Your task to perform on an android device: turn on wifi Image 0: 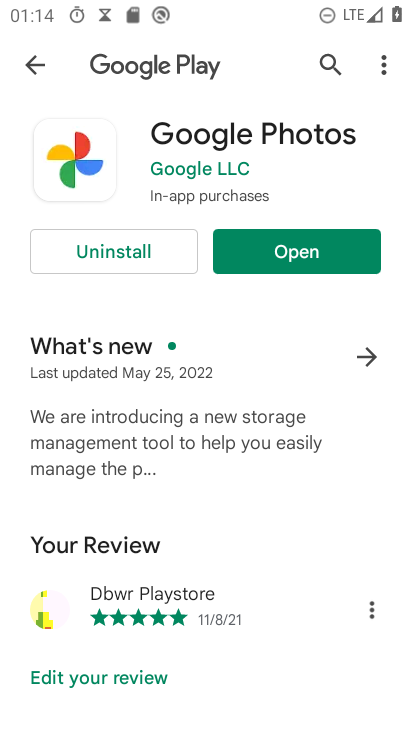
Step 0: press home button
Your task to perform on an android device: turn on wifi Image 1: 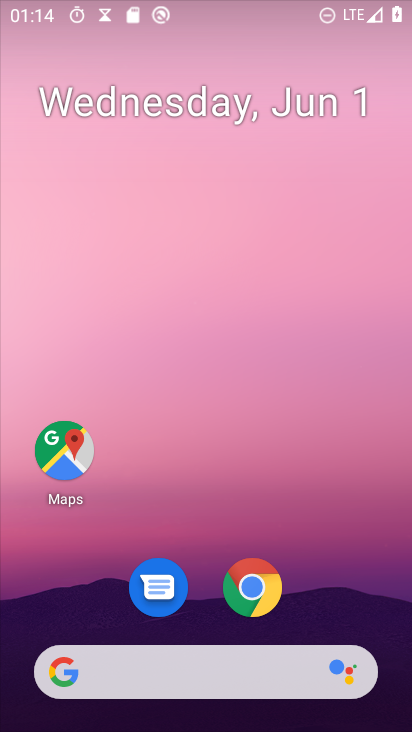
Step 1: drag from (308, 604) to (319, 6)
Your task to perform on an android device: turn on wifi Image 2: 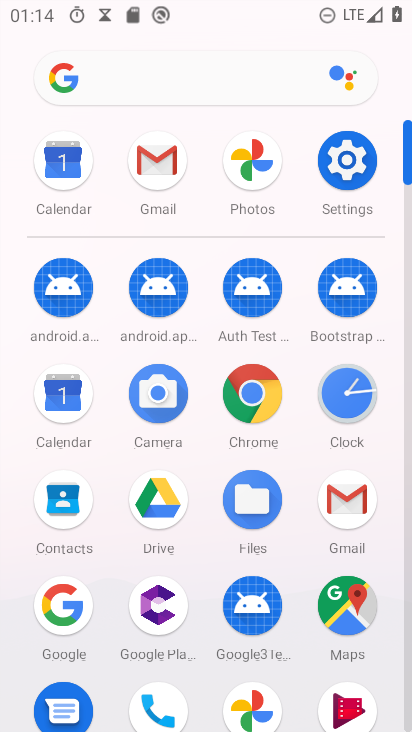
Step 2: click (352, 174)
Your task to perform on an android device: turn on wifi Image 3: 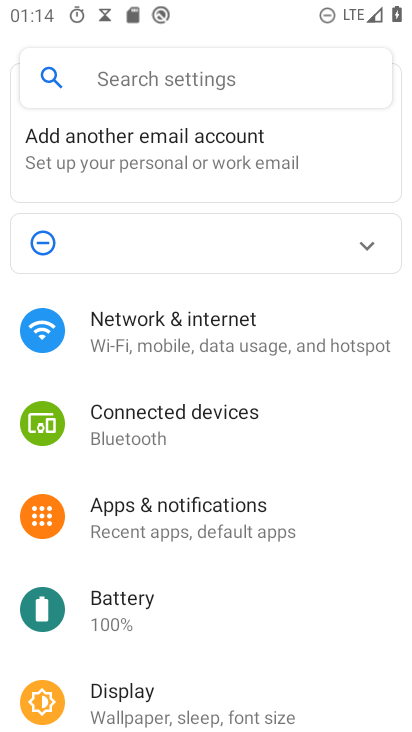
Step 3: click (106, 314)
Your task to perform on an android device: turn on wifi Image 4: 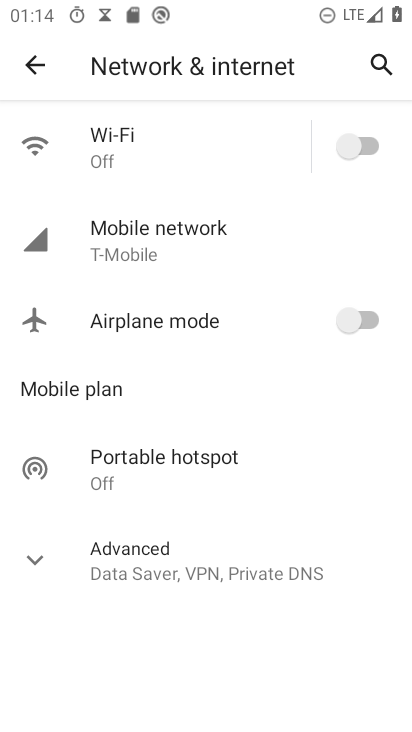
Step 4: click (374, 138)
Your task to perform on an android device: turn on wifi Image 5: 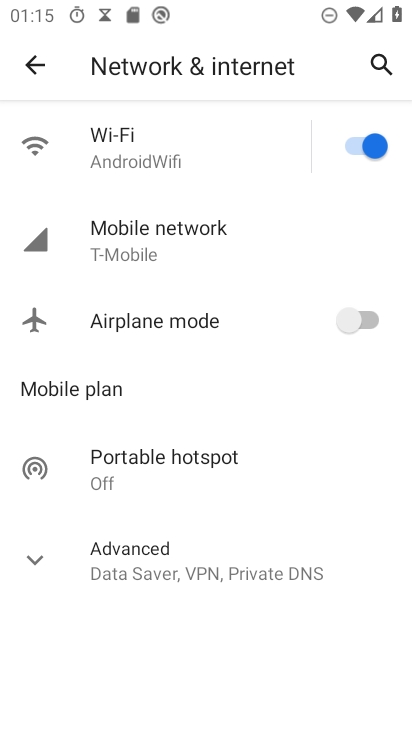
Step 5: task complete